Your task to perform on an android device: Open Chrome and go to the settings page Image 0: 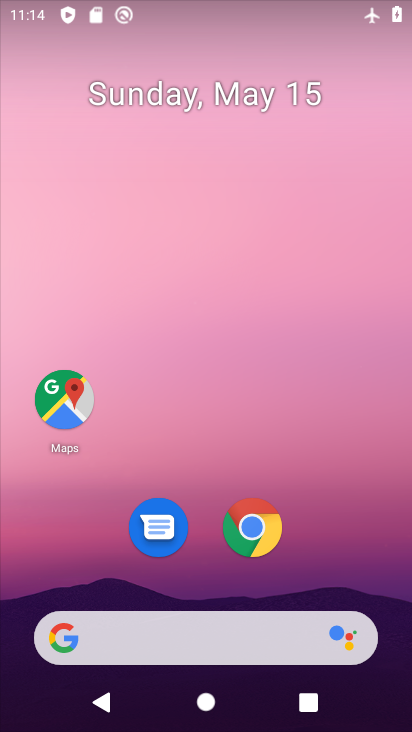
Step 0: drag from (328, 521) to (263, 11)
Your task to perform on an android device: Open Chrome and go to the settings page Image 1: 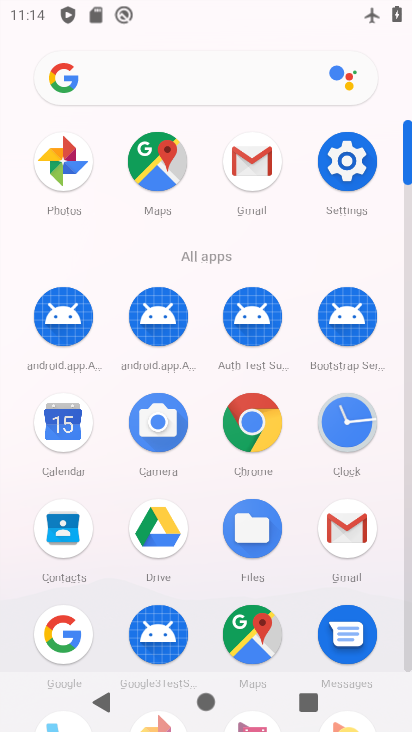
Step 1: drag from (8, 547) to (10, 241)
Your task to perform on an android device: Open Chrome and go to the settings page Image 2: 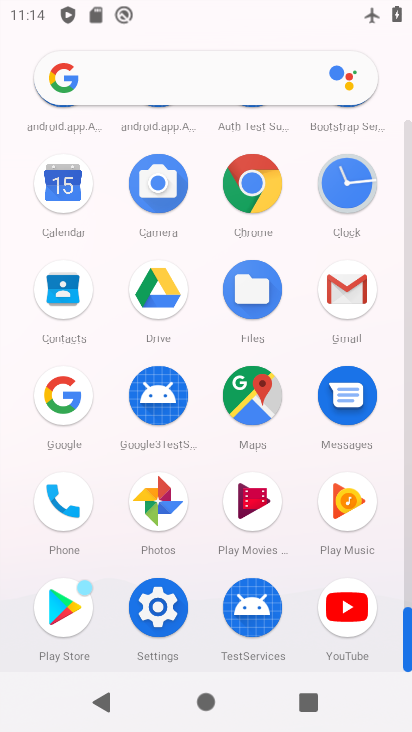
Step 2: click (252, 180)
Your task to perform on an android device: Open Chrome and go to the settings page Image 3: 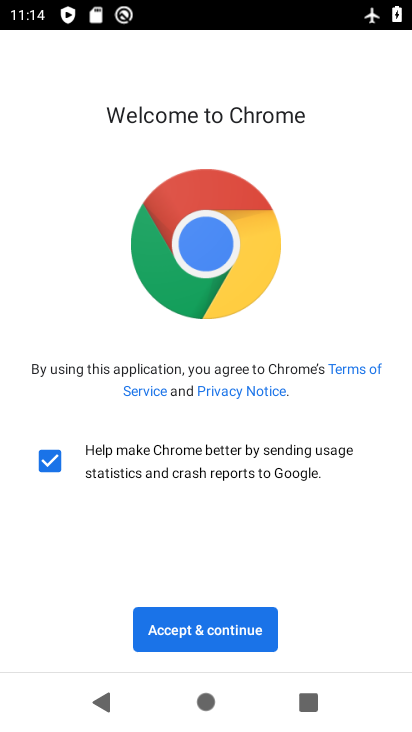
Step 3: click (231, 629)
Your task to perform on an android device: Open Chrome and go to the settings page Image 4: 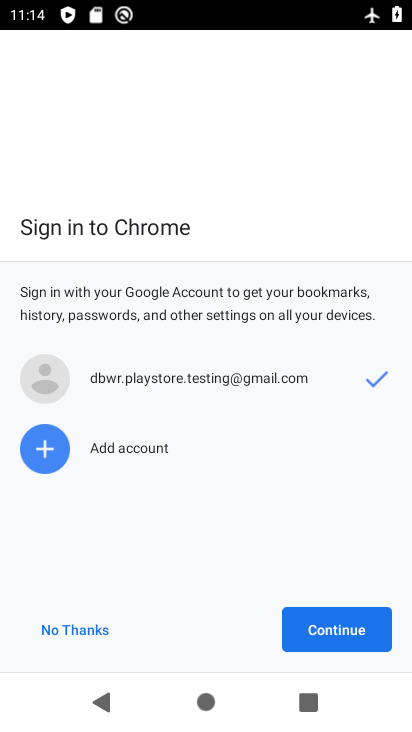
Step 4: click (337, 628)
Your task to perform on an android device: Open Chrome and go to the settings page Image 5: 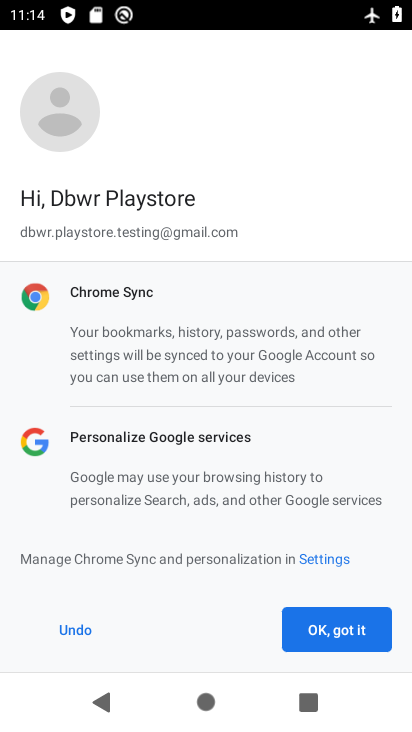
Step 5: click (334, 639)
Your task to perform on an android device: Open Chrome and go to the settings page Image 6: 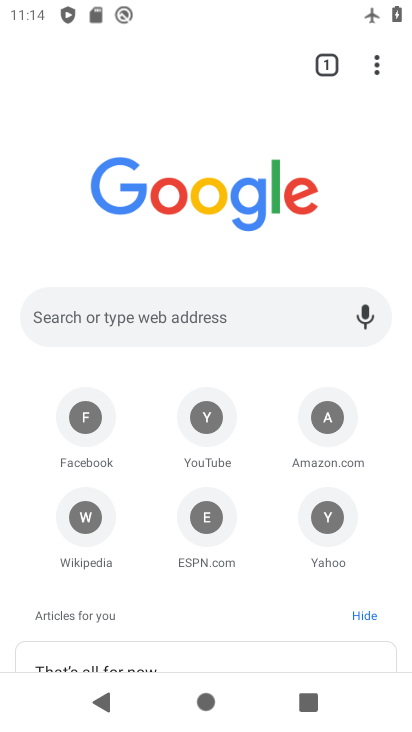
Step 6: task complete